Your task to perform on an android device: When is my next appointment? Image 0: 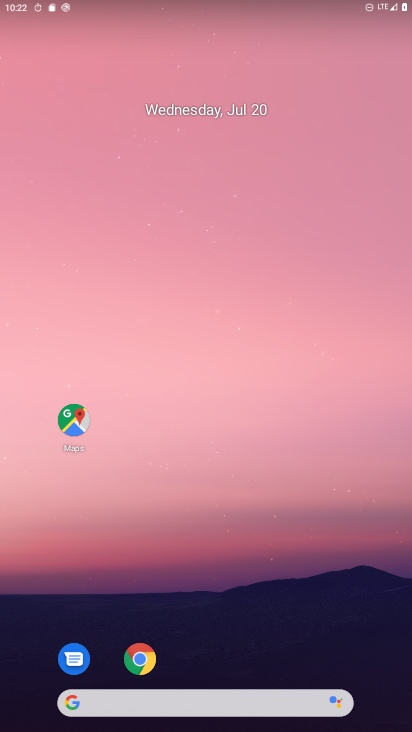
Step 0: drag from (275, 637) to (252, 240)
Your task to perform on an android device: When is my next appointment? Image 1: 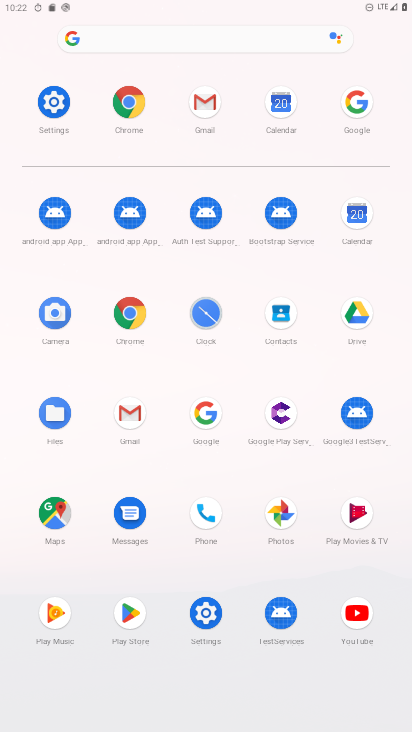
Step 1: click (358, 214)
Your task to perform on an android device: When is my next appointment? Image 2: 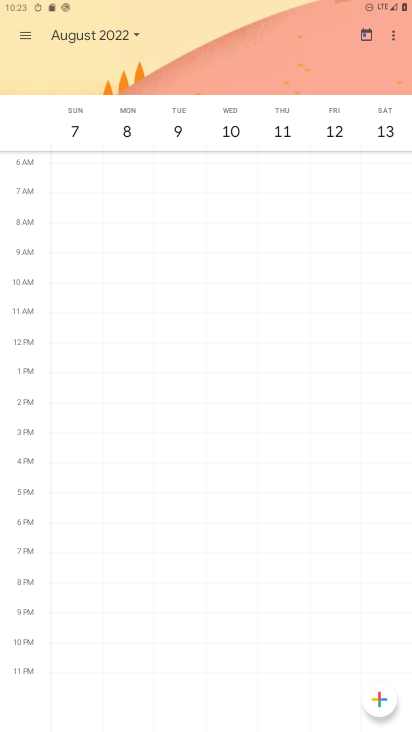
Step 2: click (122, 28)
Your task to perform on an android device: When is my next appointment? Image 3: 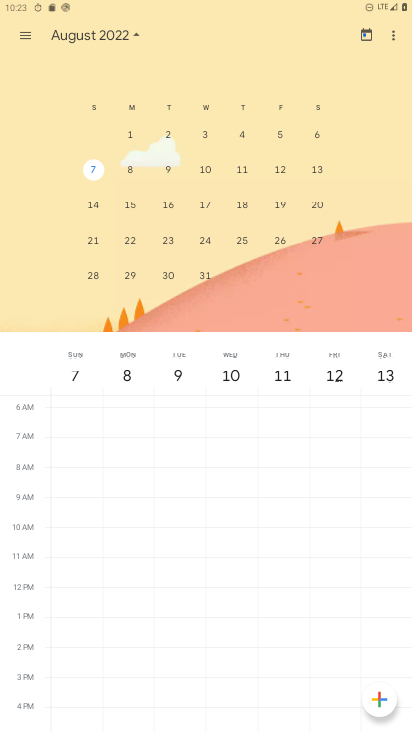
Step 3: drag from (84, 168) to (356, 207)
Your task to perform on an android device: When is my next appointment? Image 4: 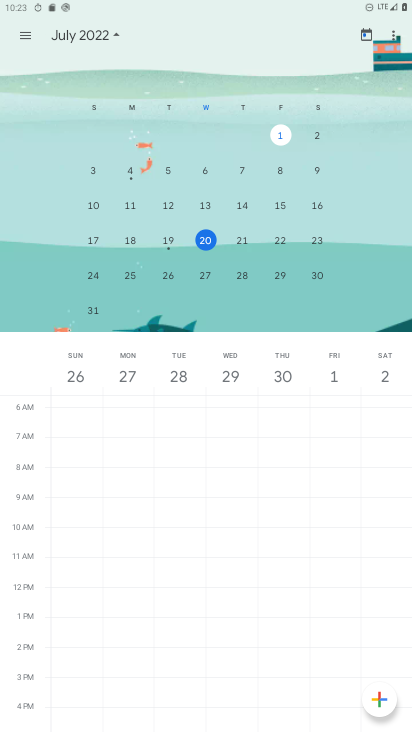
Step 4: click (201, 244)
Your task to perform on an android device: When is my next appointment? Image 5: 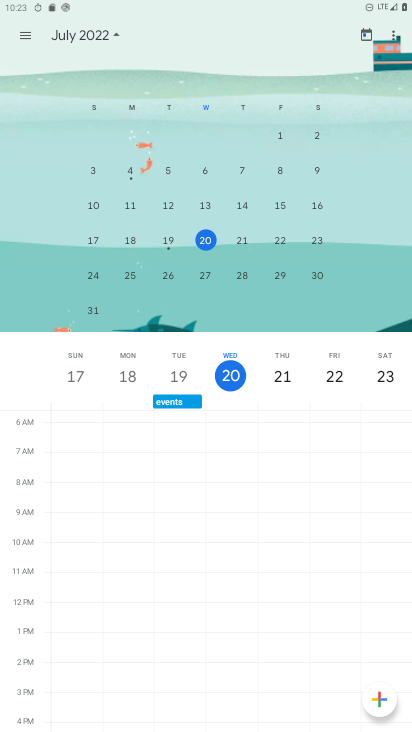
Step 5: task complete